Your task to perform on an android device: turn pop-ups on in chrome Image 0: 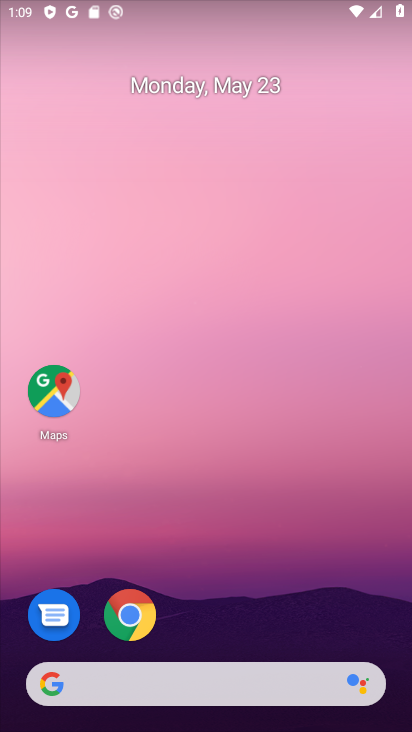
Step 0: drag from (204, 652) to (381, 420)
Your task to perform on an android device: turn pop-ups on in chrome Image 1: 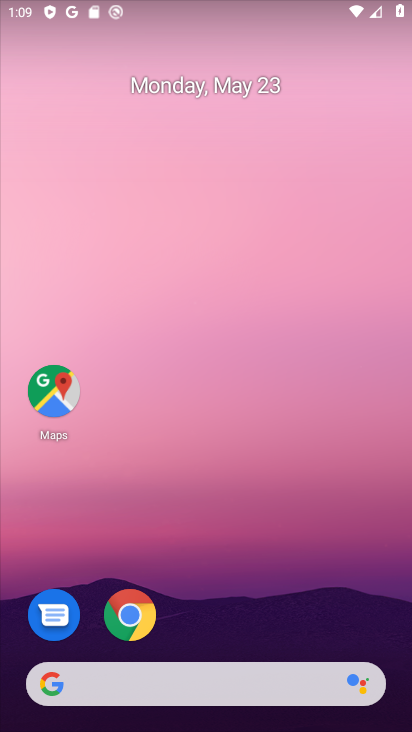
Step 1: click (113, 351)
Your task to perform on an android device: turn pop-ups on in chrome Image 2: 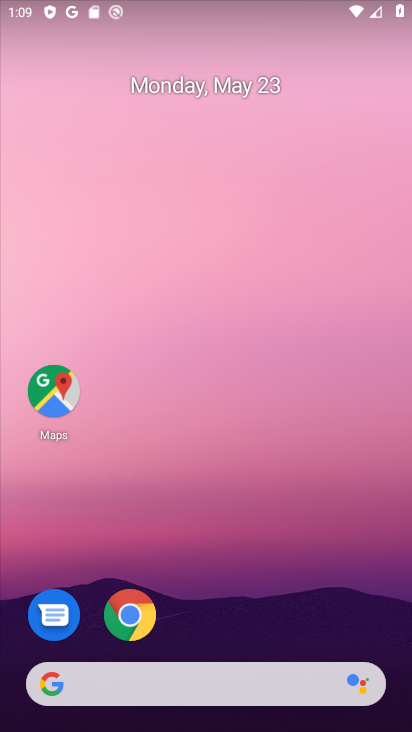
Step 2: click (120, 592)
Your task to perform on an android device: turn pop-ups on in chrome Image 3: 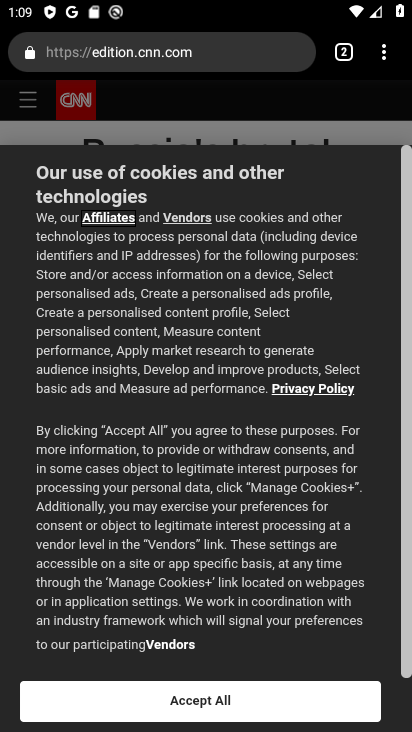
Step 3: click (387, 62)
Your task to perform on an android device: turn pop-ups on in chrome Image 4: 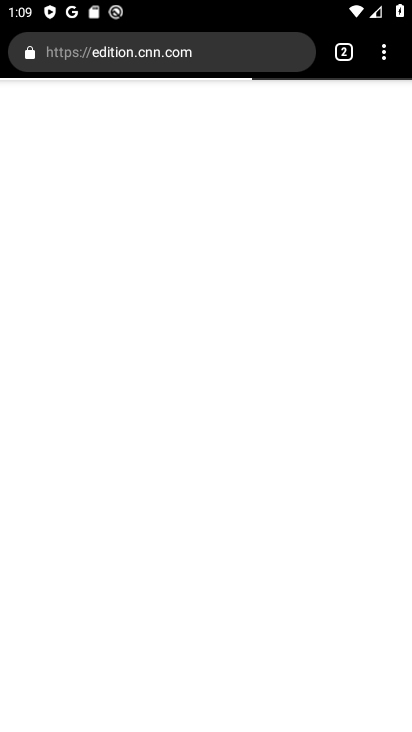
Step 4: click (387, 62)
Your task to perform on an android device: turn pop-ups on in chrome Image 5: 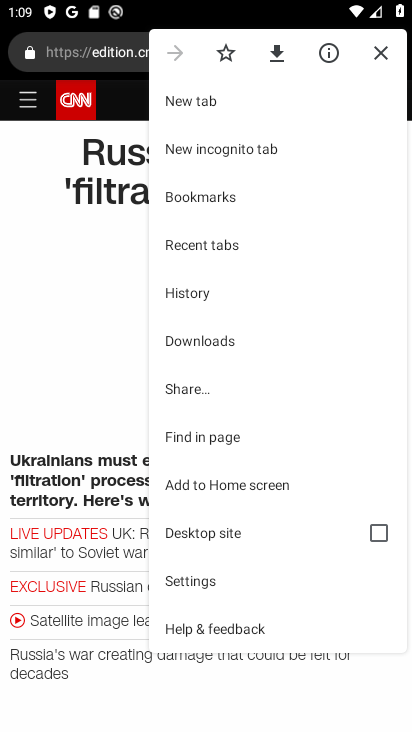
Step 5: click (197, 577)
Your task to perform on an android device: turn pop-ups on in chrome Image 6: 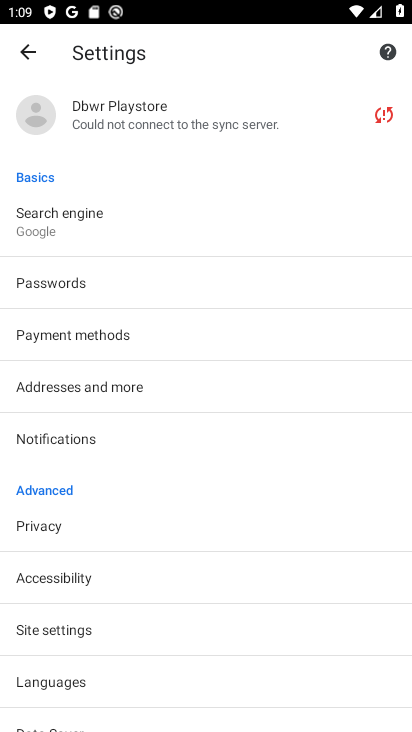
Step 6: click (70, 638)
Your task to perform on an android device: turn pop-ups on in chrome Image 7: 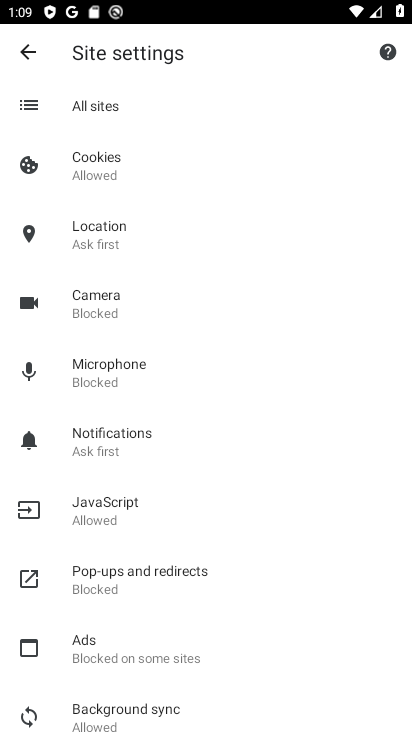
Step 7: click (126, 587)
Your task to perform on an android device: turn pop-ups on in chrome Image 8: 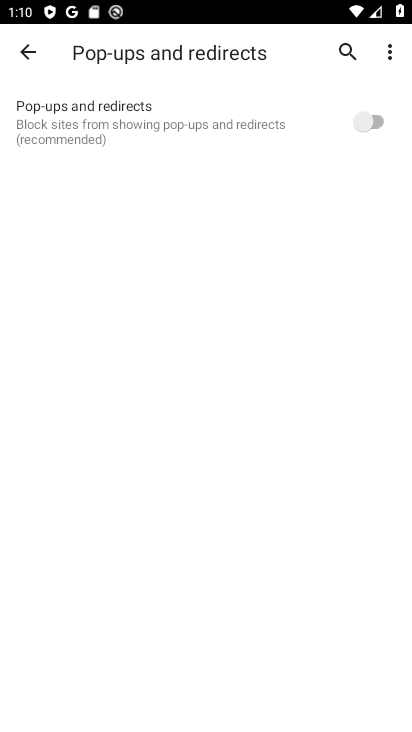
Step 8: click (371, 131)
Your task to perform on an android device: turn pop-ups on in chrome Image 9: 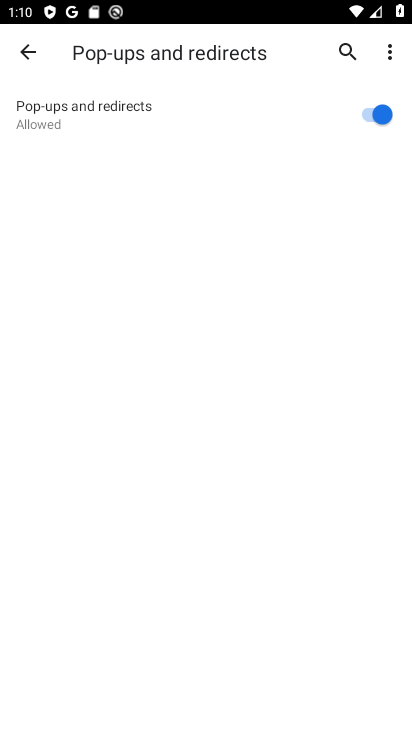
Step 9: task complete